Your task to perform on an android device: turn on bluetooth scan Image 0: 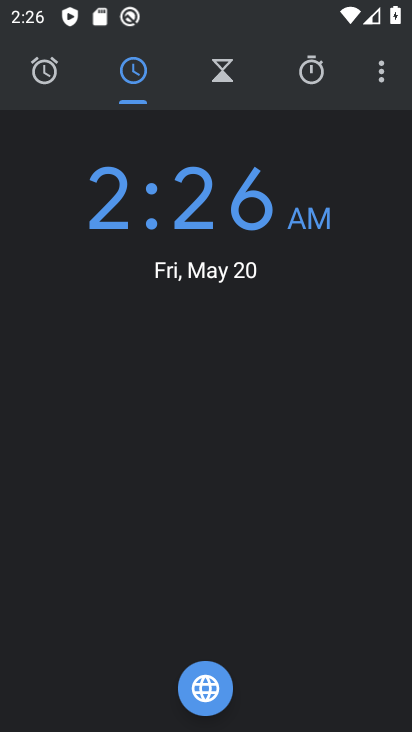
Step 0: press home button
Your task to perform on an android device: turn on bluetooth scan Image 1: 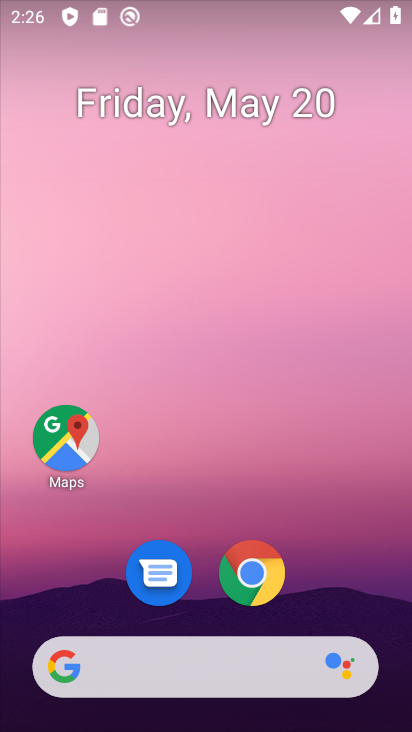
Step 1: drag from (206, 608) to (283, 7)
Your task to perform on an android device: turn on bluetooth scan Image 2: 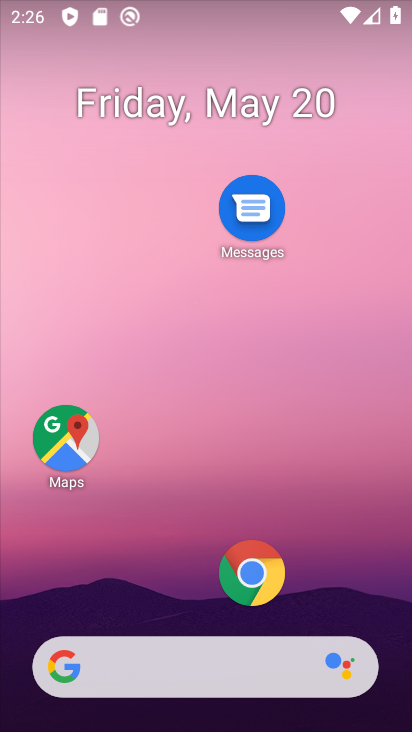
Step 2: drag from (185, 602) to (175, 113)
Your task to perform on an android device: turn on bluetooth scan Image 3: 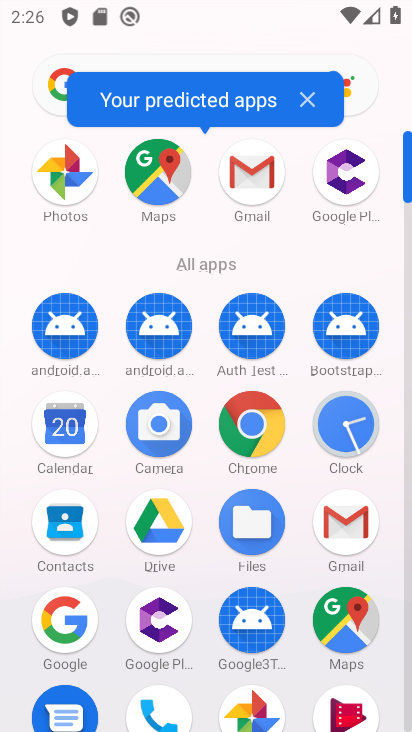
Step 3: drag from (183, 629) to (195, 244)
Your task to perform on an android device: turn on bluetooth scan Image 4: 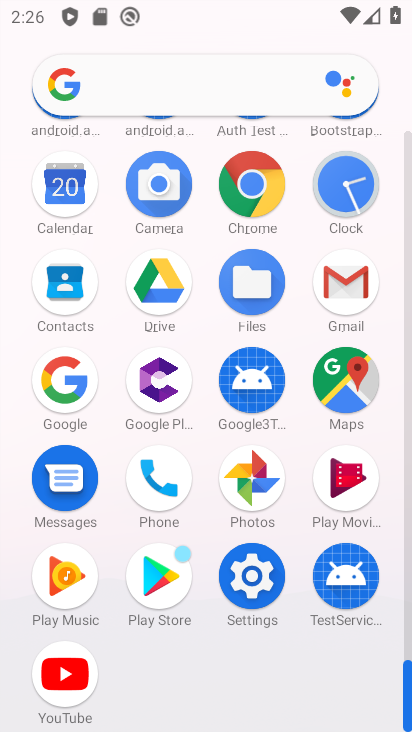
Step 4: click (253, 559)
Your task to perform on an android device: turn on bluetooth scan Image 5: 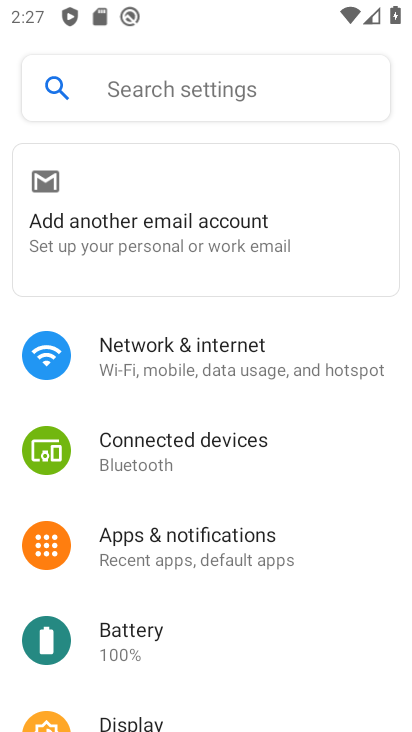
Step 5: drag from (150, 684) to (204, 263)
Your task to perform on an android device: turn on bluetooth scan Image 6: 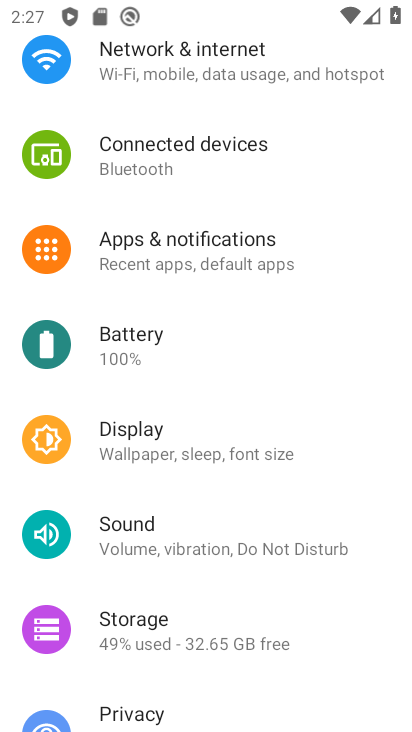
Step 6: drag from (133, 688) to (207, 257)
Your task to perform on an android device: turn on bluetooth scan Image 7: 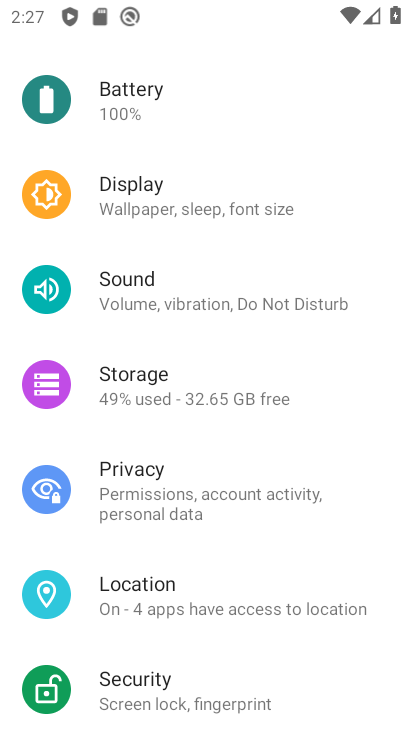
Step 7: drag from (162, 665) to (212, 322)
Your task to perform on an android device: turn on bluetooth scan Image 8: 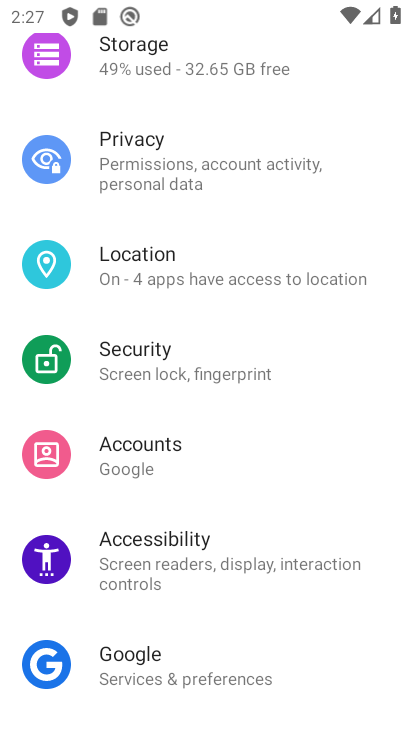
Step 8: click (151, 294)
Your task to perform on an android device: turn on bluetooth scan Image 9: 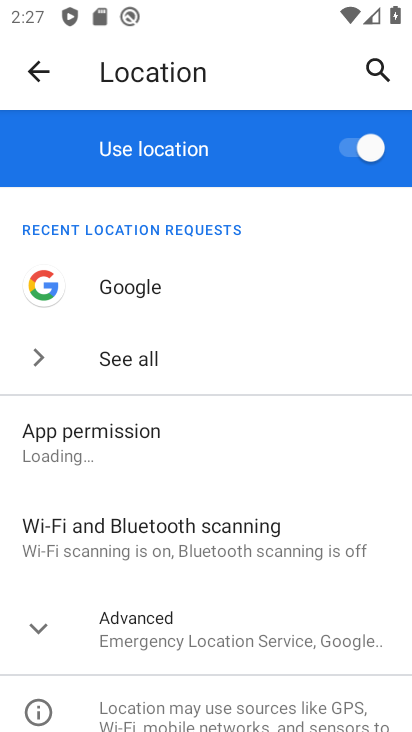
Step 9: click (188, 561)
Your task to perform on an android device: turn on bluetooth scan Image 10: 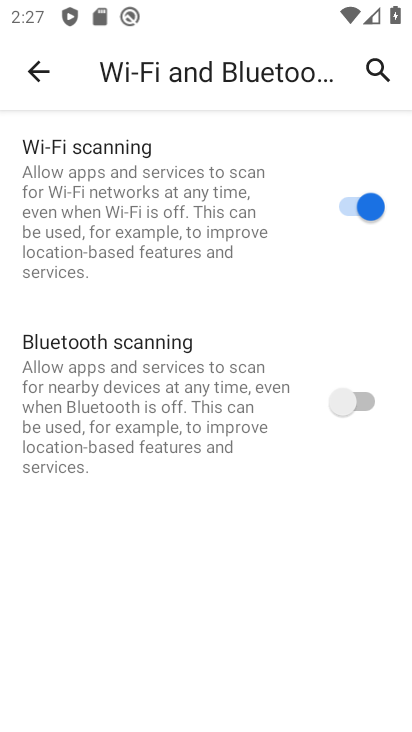
Step 10: click (364, 399)
Your task to perform on an android device: turn on bluetooth scan Image 11: 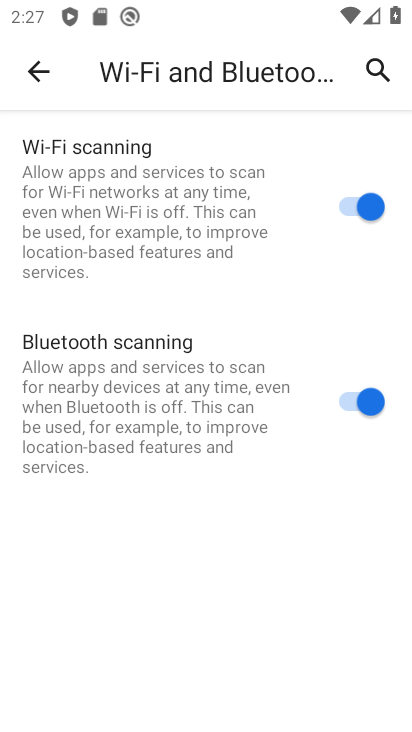
Step 11: task complete